Your task to perform on an android device: Open Google Image 0: 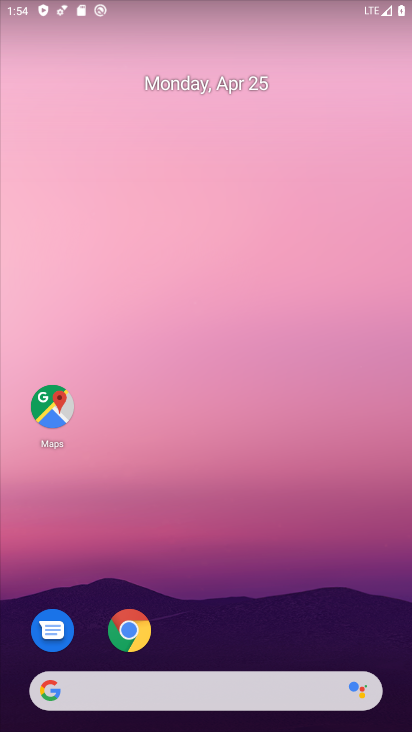
Step 0: click (361, 85)
Your task to perform on an android device: Open Google Image 1: 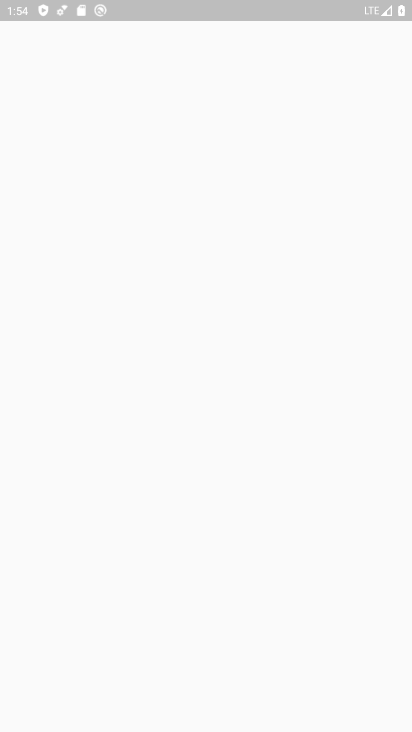
Step 1: press home button
Your task to perform on an android device: Open Google Image 2: 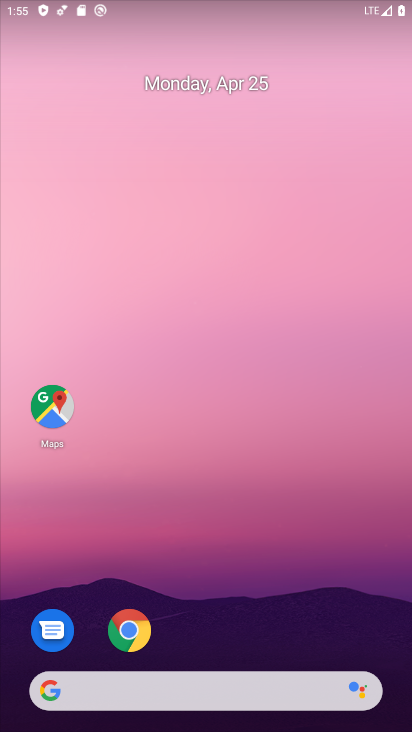
Step 2: drag from (371, 255) to (354, 92)
Your task to perform on an android device: Open Google Image 3: 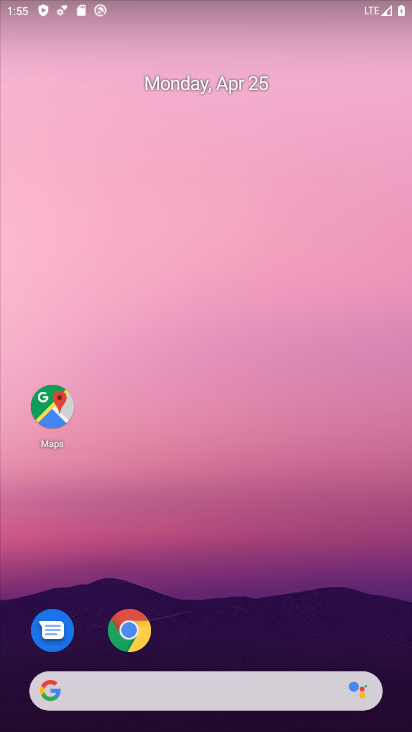
Step 3: drag from (277, 290) to (275, 4)
Your task to perform on an android device: Open Google Image 4: 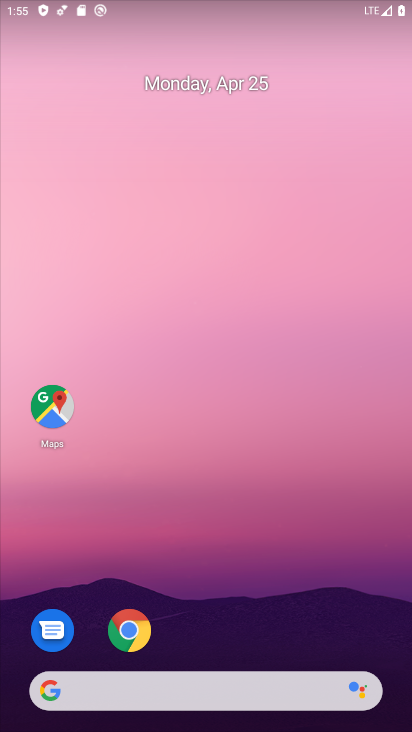
Step 4: drag from (292, 594) to (301, 19)
Your task to perform on an android device: Open Google Image 5: 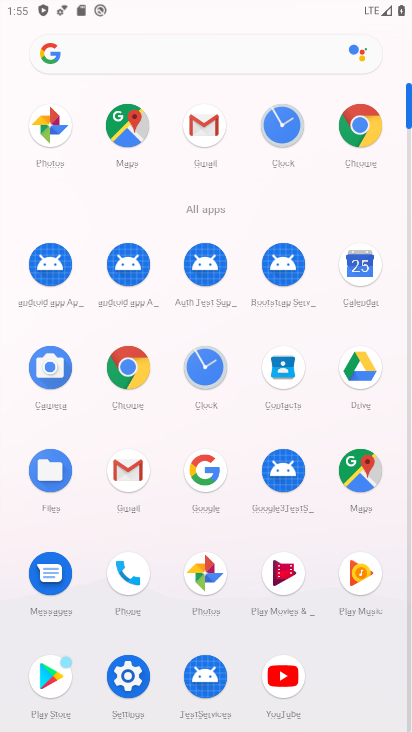
Step 5: click (202, 486)
Your task to perform on an android device: Open Google Image 6: 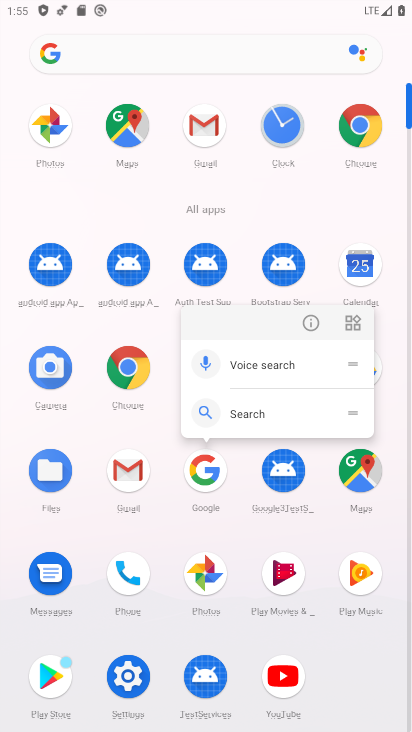
Step 6: click (202, 486)
Your task to perform on an android device: Open Google Image 7: 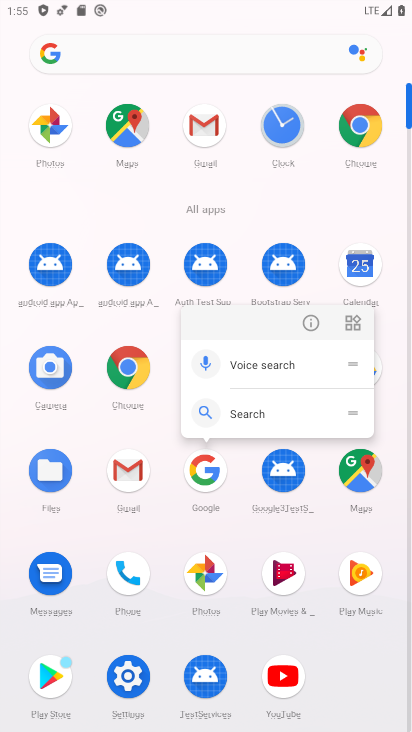
Step 7: click (202, 486)
Your task to perform on an android device: Open Google Image 8: 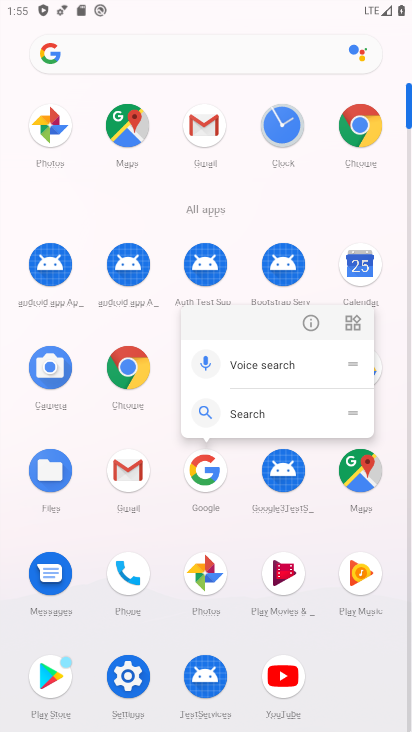
Step 8: click (202, 486)
Your task to perform on an android device: Open Google Image 9: 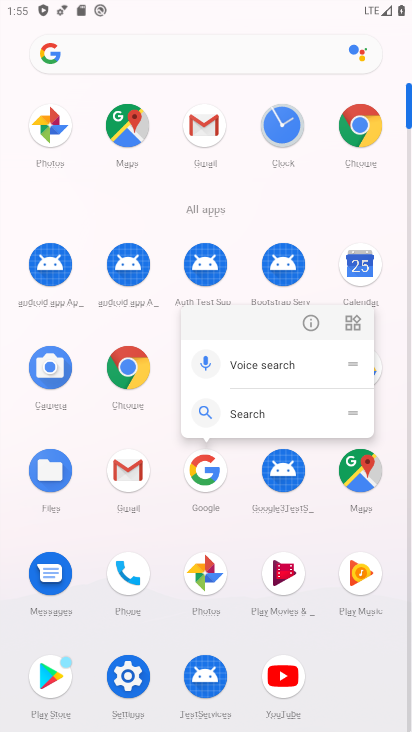
Step 9: click (202, 486)
Your task to perform on an android device: Open Google Image 10: 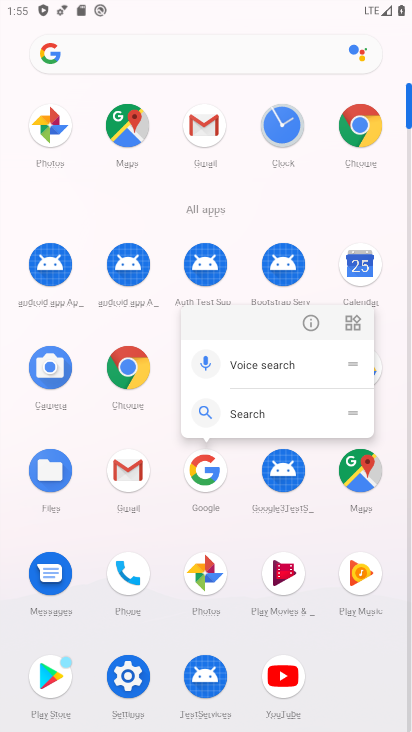
Step 10: click (215, 463)
Your task to perform on an android device: Open Google Image 11: 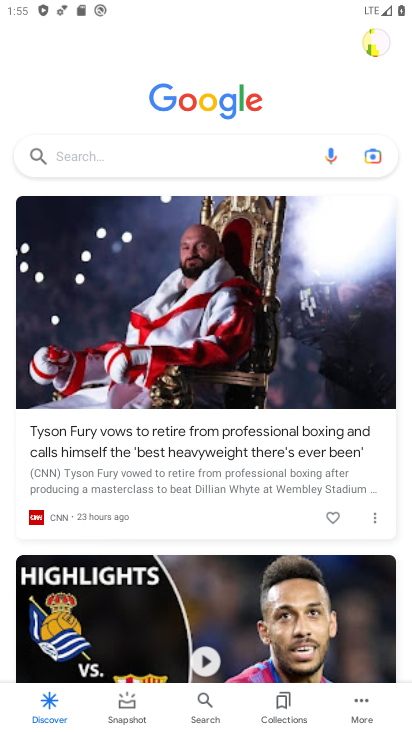
Step 11: task complete